Your task to perform on an android device: turn off notifications in google photos Image 0: 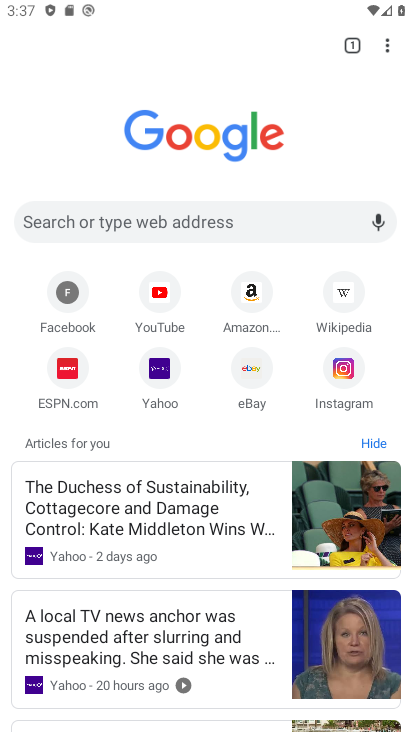
Step 0: press home button
Your task to perform on an android device: turn off notifications in google photos Image 1: 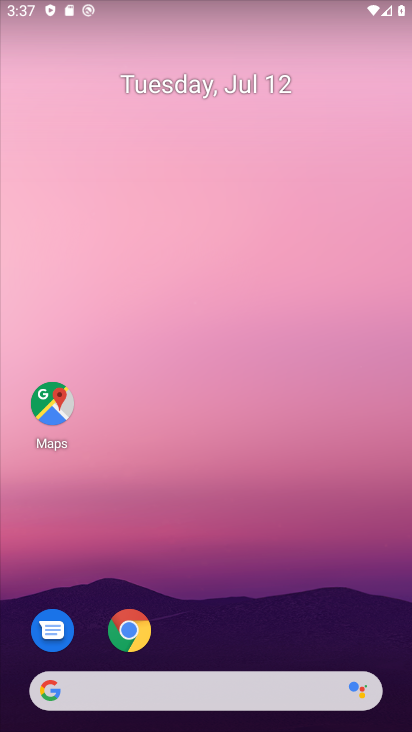
Step 1: drag from (338, 453) to (376, 119)
Your task to perform on an android device: turn off notifications in google photos Image 2: 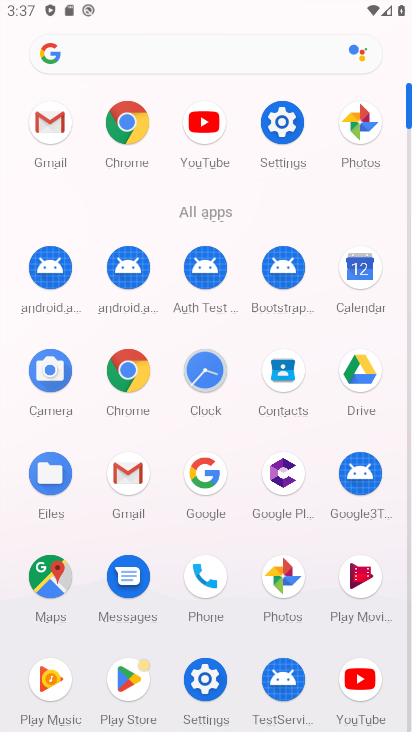
Step 2: click (361, 133)
Your task to perform on an android device: turn off notifications in google photos Image 3: 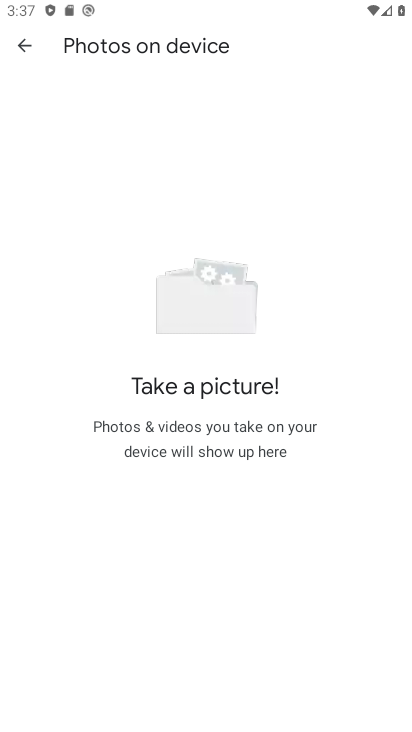
Step 3: click (17, 36)
Your task to perform on an android device: turn off notifications in google photos Image 4: 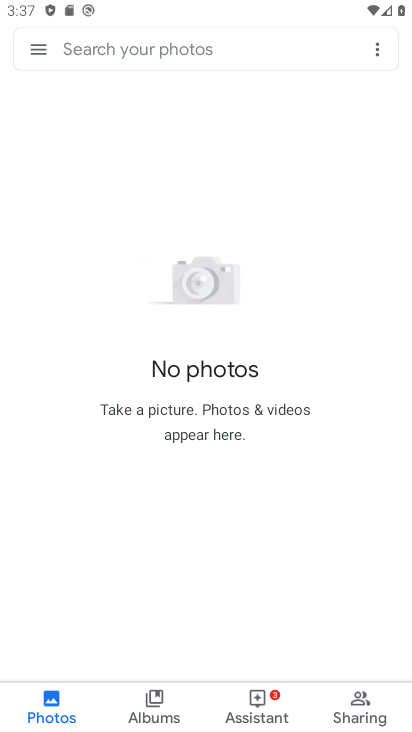
Step 4: click (34, 40)
Your task to perform on an android device: turn off notifications in google photos Image 5: 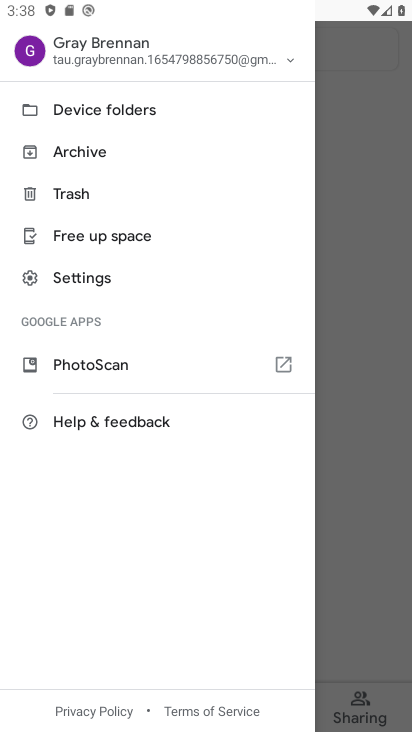
Step 5: click (103, 269)
Your task to perform on an android device: turn off notifications in google photos Image 6: 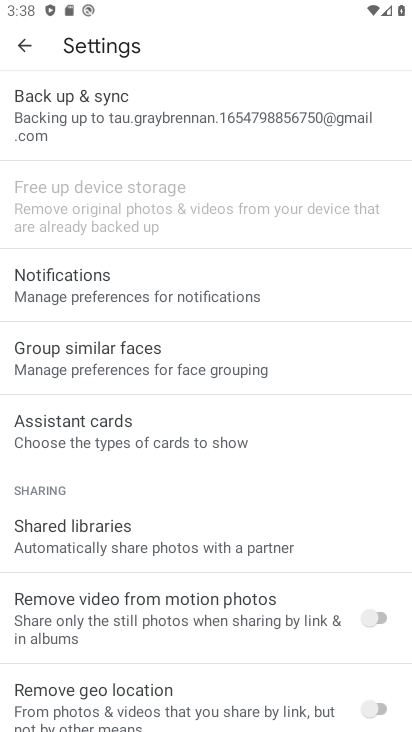
Step 6: click (103, 279)
Your task to perform on an android device: turn off notifications in google photos Image 7: 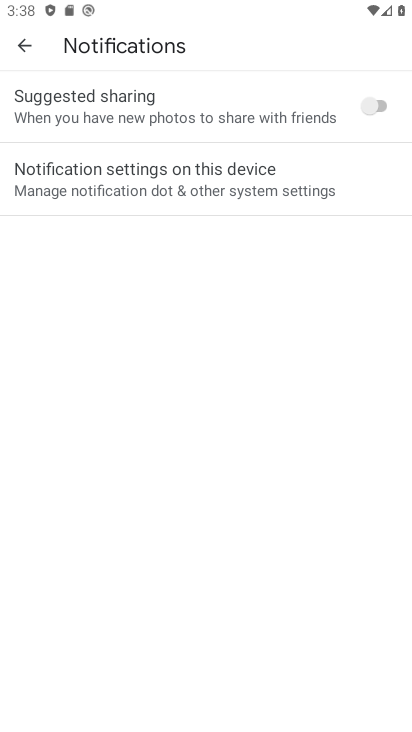
Step 7: click (191, 183)
Your task to perform on an android device: turn off notifications in google photos Image 8: 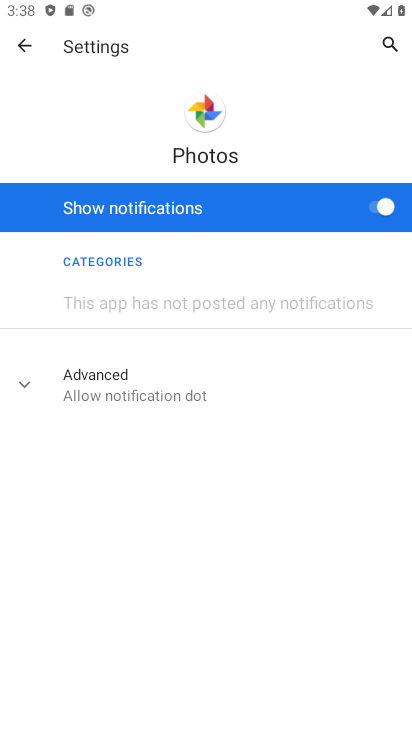
Step 8: click (362, 201)
Your task to perform on an android device: turn off notifications in google photos Image 9: 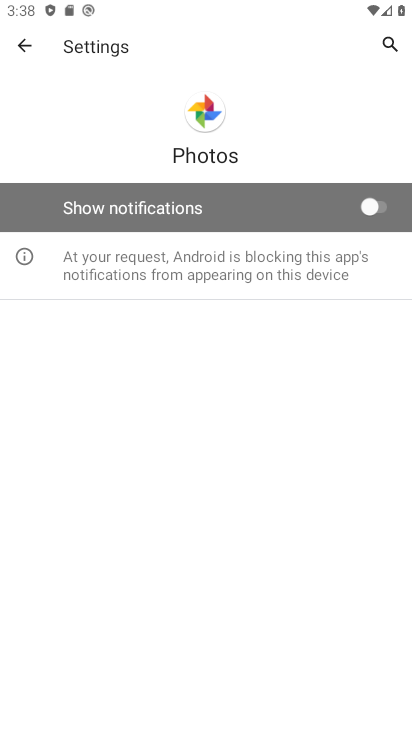
Step 9: task complete